Your task to perform on an android device: What's on the menu at IHOP? Image 0: 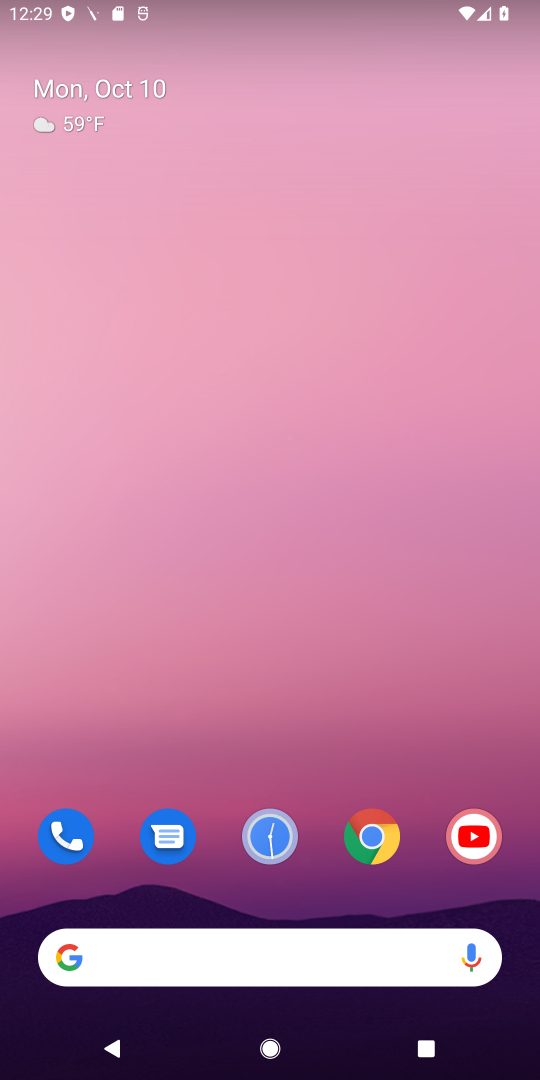
Step 0: click (369, 847)
Your task to perform on an android device: What's on the menu at IHOP? Image 1: 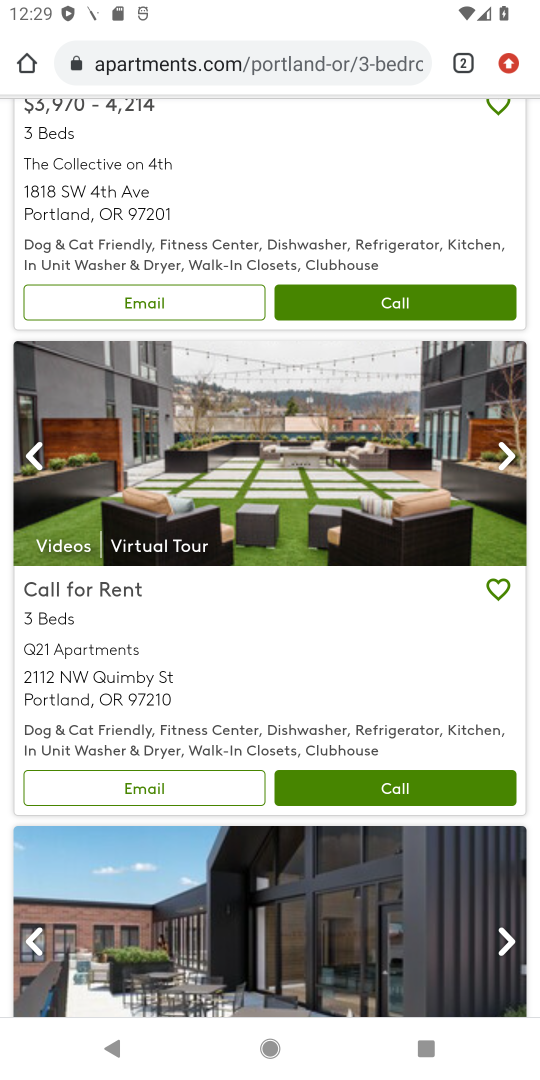
Step 1: click (231, 59)
Your task to perform on an android device: What's on the menu at IHOP? Image 2: 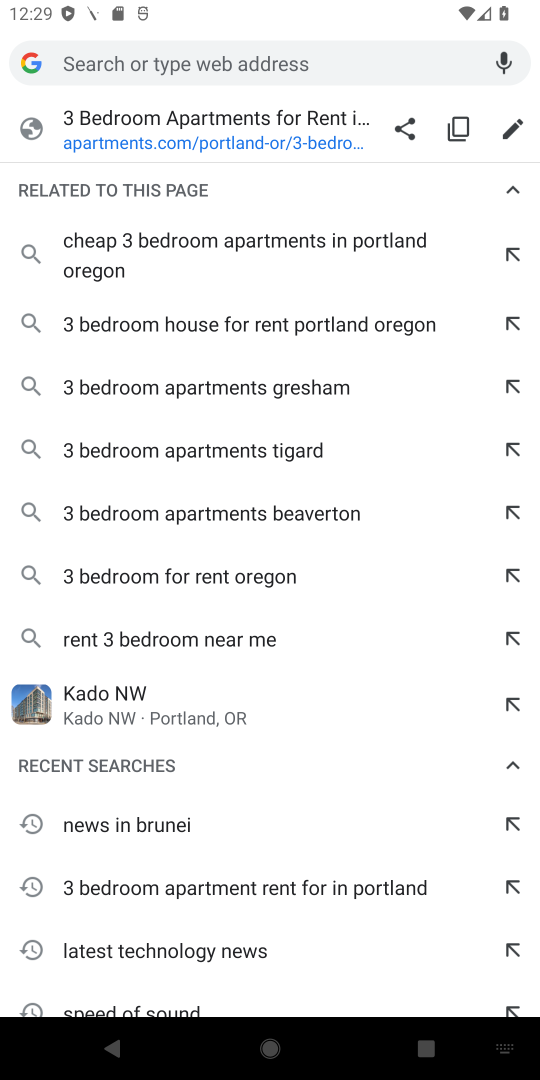
Step 2: type "IHOP menu"
Your task to perform on an android device: What's on the menu at IHOP? Image 3: 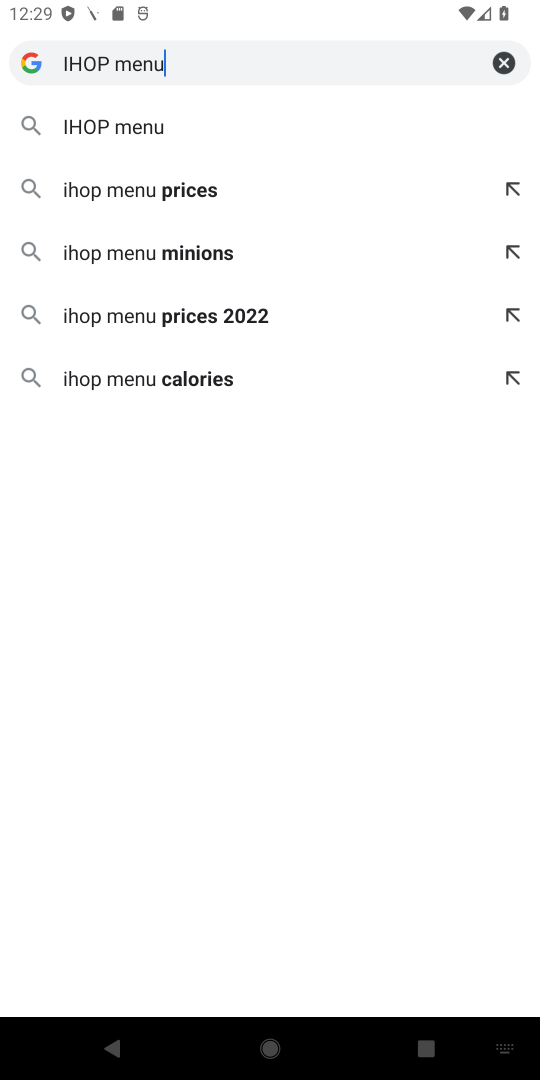
Step 3: click (204, 131)
Your task to perform on an android device: What's on the menu at IHOP? Image 4: 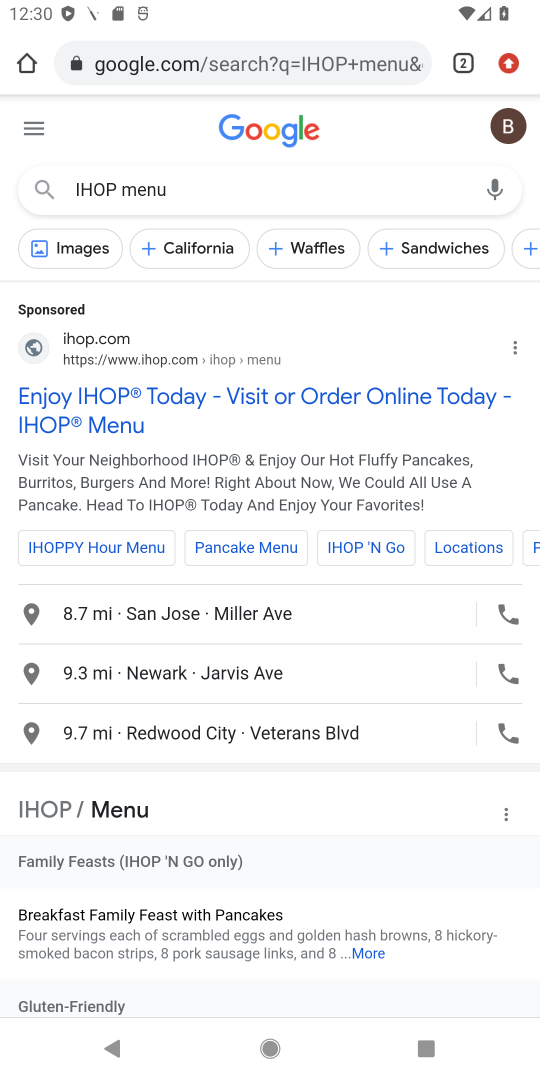
Step 4: drag from (222, 876) to (244, 541)
Your task to perform on an android device: What's on the menu at IHOP? Image 5: 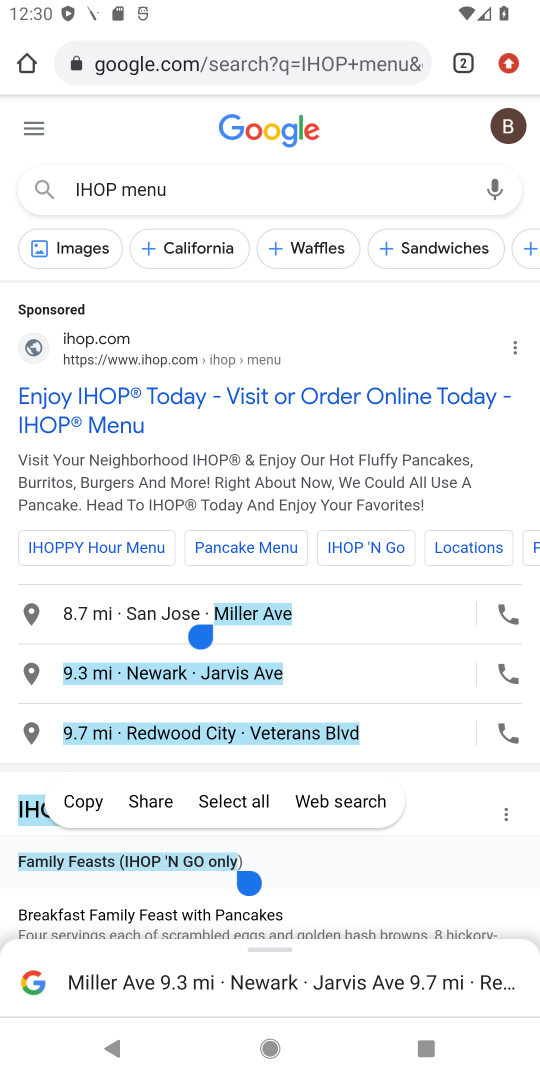
Step 5: click (334, 844)
Your task to perform on an android device: What's on the menu at IHOP? Image 6: 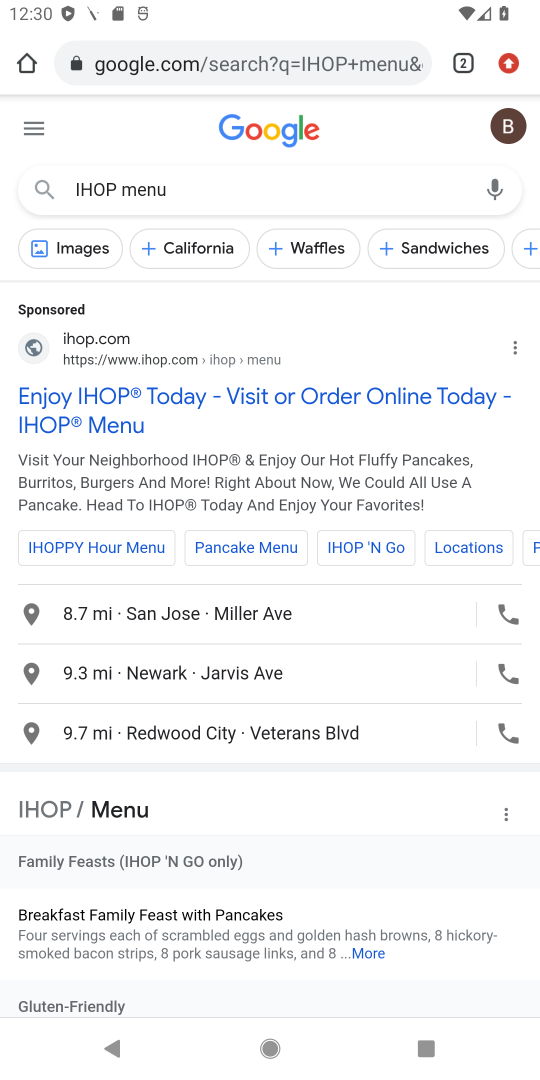
Step 6: drag from (334, 844) to (347, 221)
Your task to perform on an android device: What's on the menu at IHOP? Image 7: 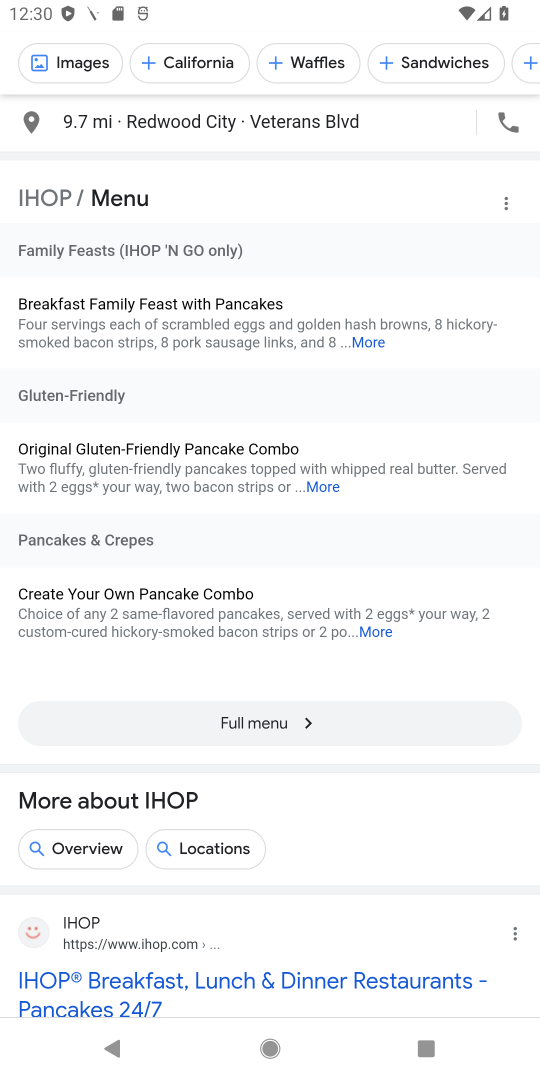
Step 7: click (275, 719)
Your task to perform on an android device: What's on the menu at IHOP? Image 8: 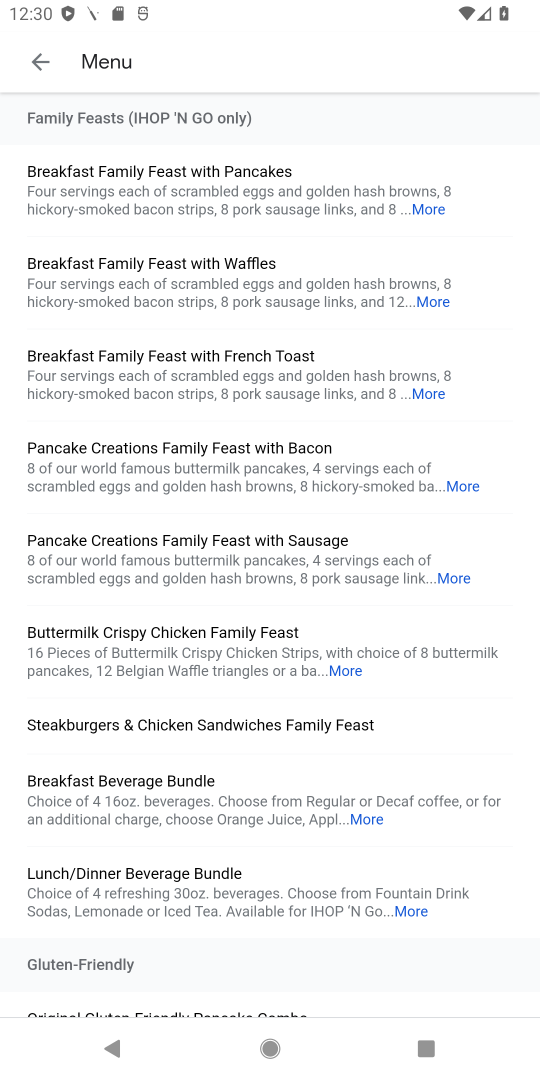
Step 8: task complete